Your task to perform on an android device: open the mobile data screen to see how much data has been used Image 0: 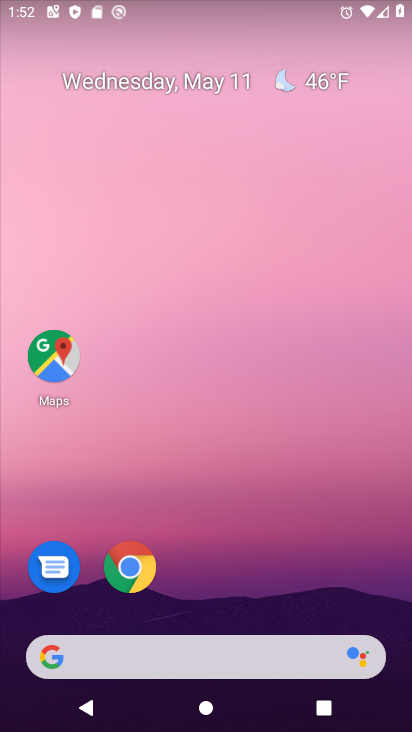
Step 0: drag from (206, 621) to (253, 14)
Your task to perform on an android device: open the mobile data screen to see how much data has been used Image 1: 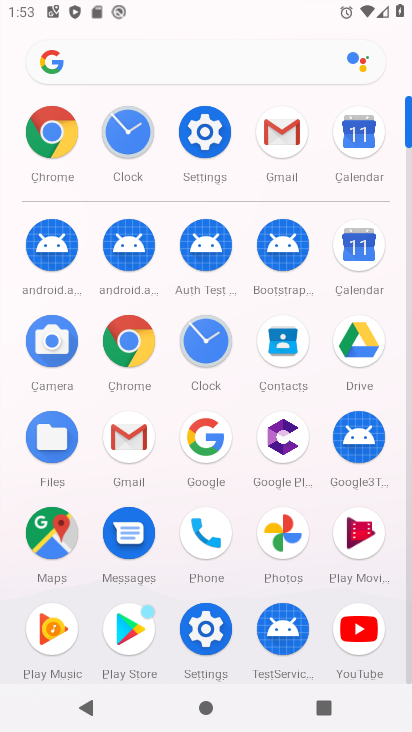
Step 1: click (200, 124)
Your task to perform on an android device: open the mobile data screen to see how much data has been used Image 2: 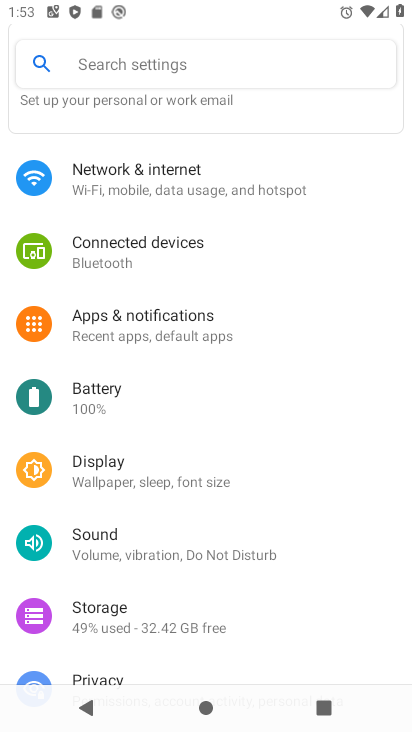
Step 2: click (152, 179)
Your task to perform on an android device: open the mobile data screen to see how much data has been used Image 3: 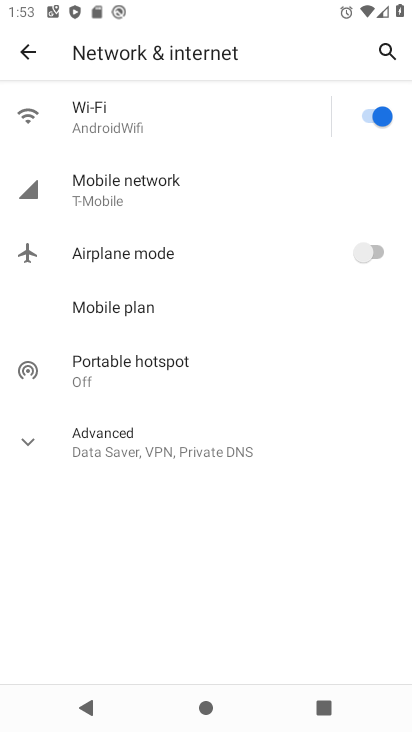
Step 3: click (128, 187)
Your task to perform on an android device: open the mobile data screen to see how much data has been used Image 4: 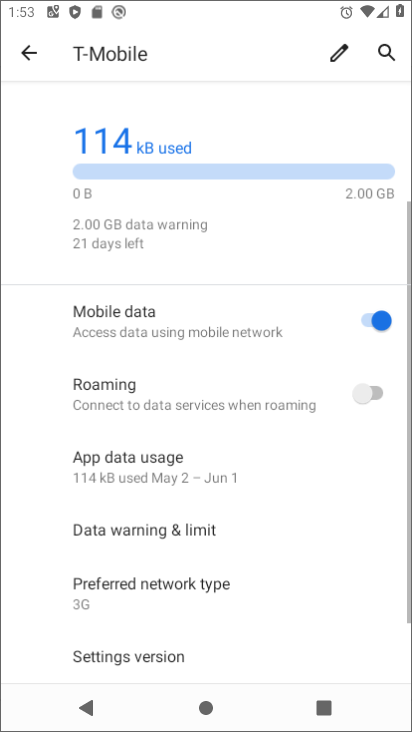
Step 4: task complete